Your task to perform on an android device: Search for a 36" x 48" whiteboard on Home Depot Image 0: 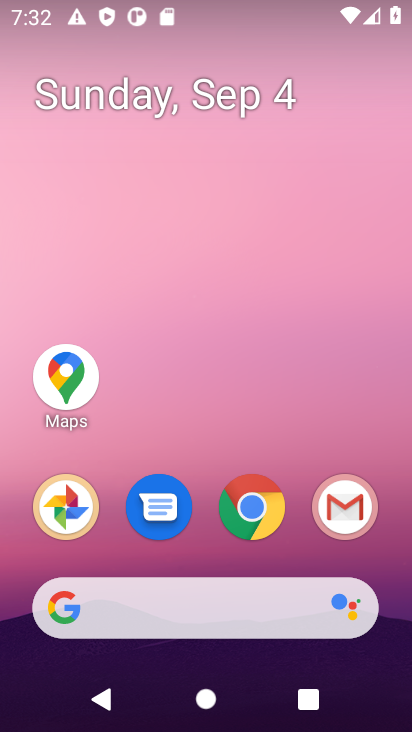
Step 0: click (255, 513)
Your task to perform on an android device: Search for a 36" x 48" whiteboard on Home Depot Image 1: 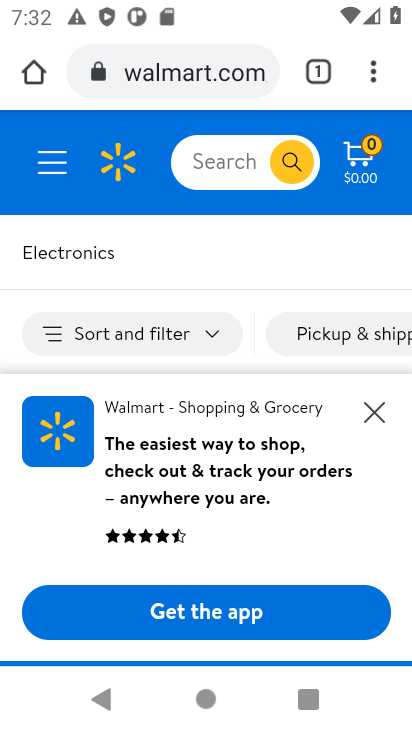
Step 1: click (215, 69)
Your task to perform on an android device: Search for a 36" x 48" whiteboard on Home Depot Image 2: 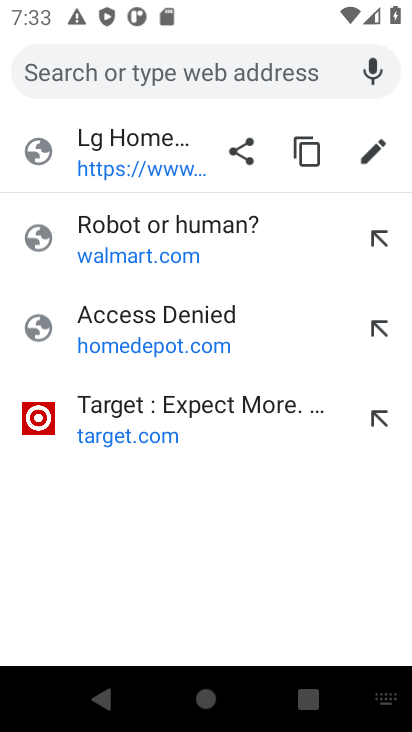
Step 2: type "home depot"
Your task to perform on an android device: Search for a 36" x 48" whiteboard on Home Depot Image 3: 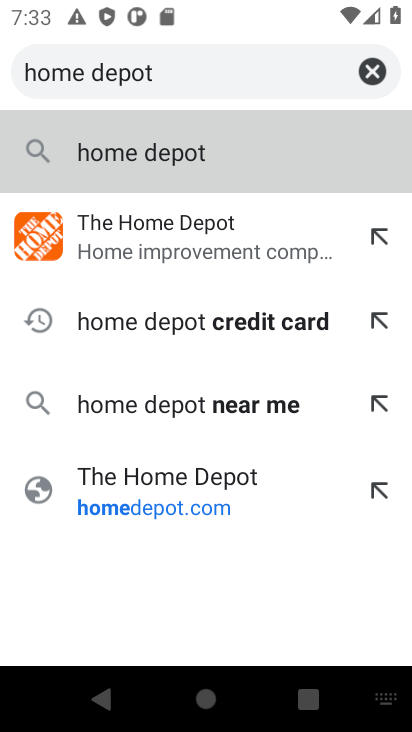
Step 3: click (184, 500)
Your task to perform on an android device: Search for a 36" x 48" whiteboard on Home Depot Image 4: 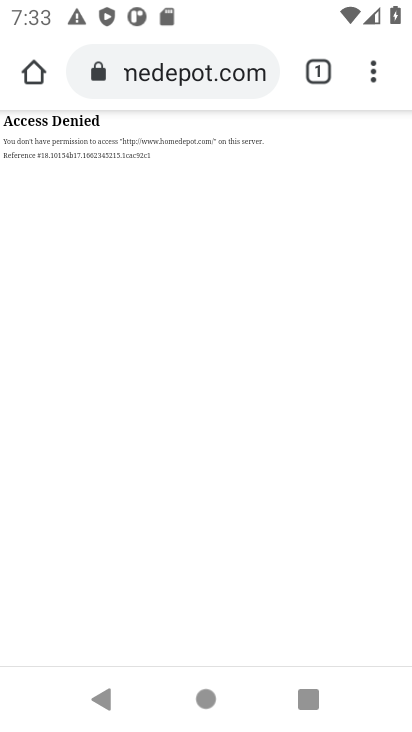
Step 4: task complete